Your task to perform on an android device: Open battery settings Image 0: 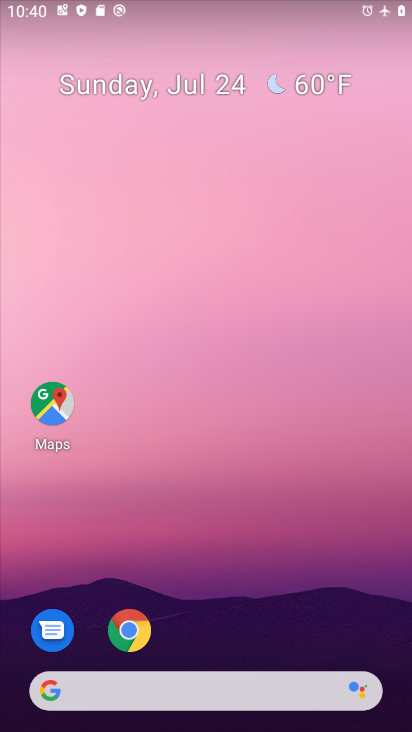
Step 0: drag from (223, 600) to (273, 2)
Your task to perform on an android device: Open battery settings Image 1: 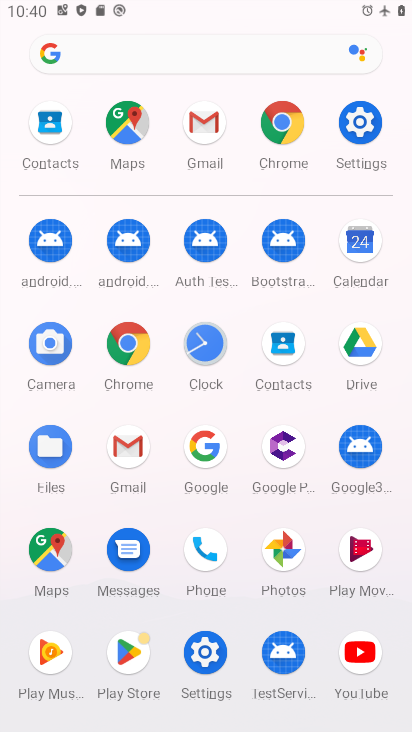
Step 1: click (203, 666)
Your task to perform on an android device: Open battery settings Image 2: 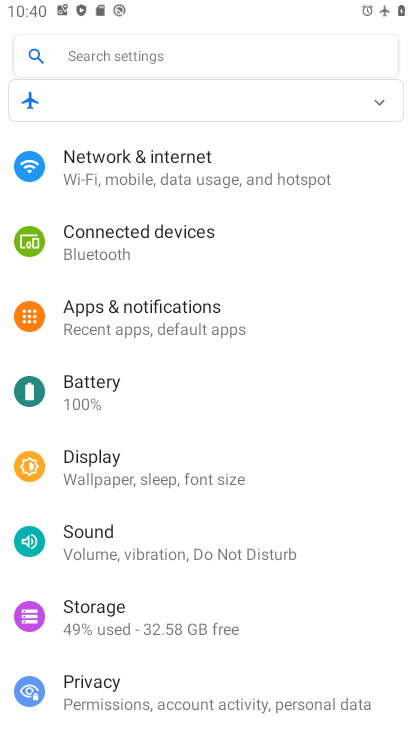
Step 2: click (126, 400)
Your task to perform on an android device: Open battery settings Image 3: 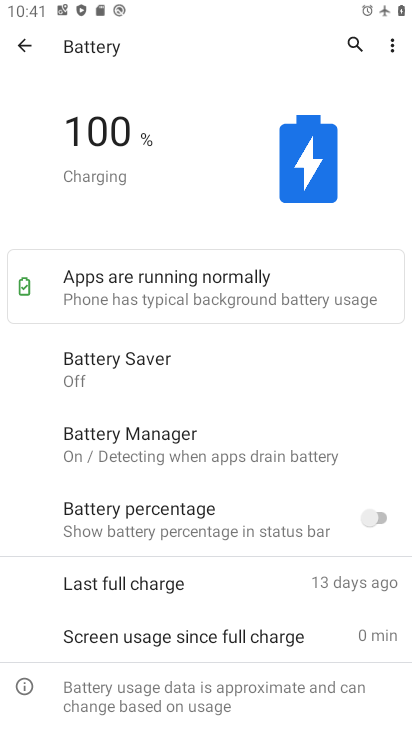
Step 3: task complete